Your task to perform on an android device: Go to Google maps Image 0: 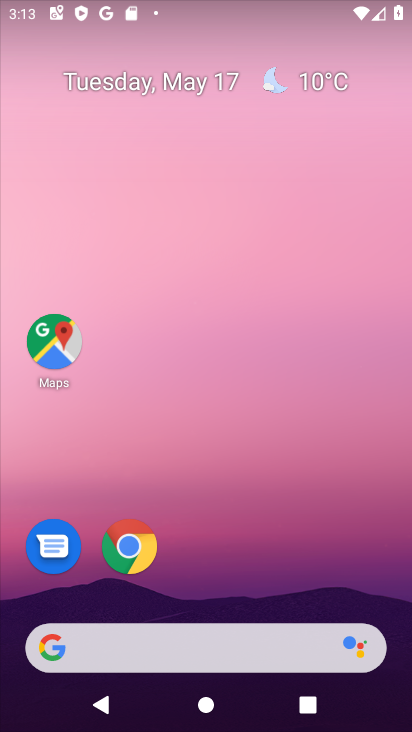
Step 0: drag from (226, 593) to (271, 76)
Your task to perform on an android device: Go to Google maps Image 1: 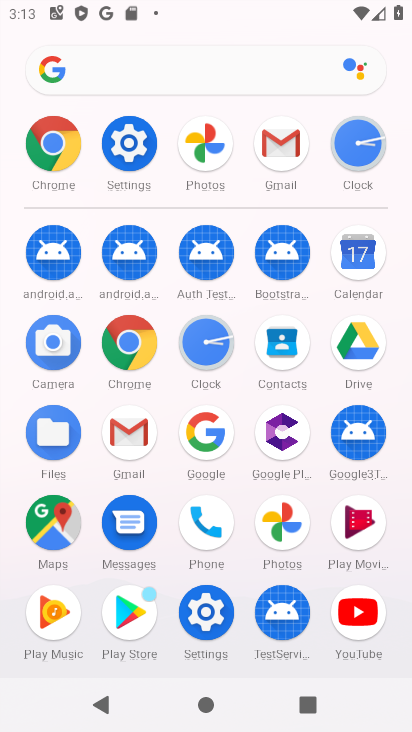
Step 1: click (39, 519)
Your task to perform on an android device: Go to Google maps Image 2: 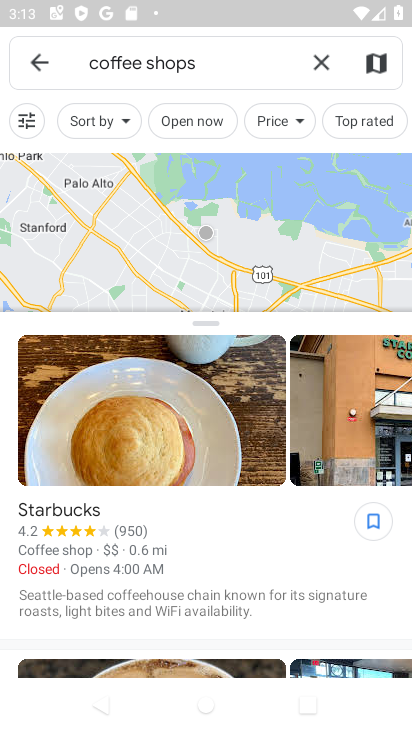
Step 2: task complete